Your task to perform on an android device: turn on javascript in the chrome app Image 0: 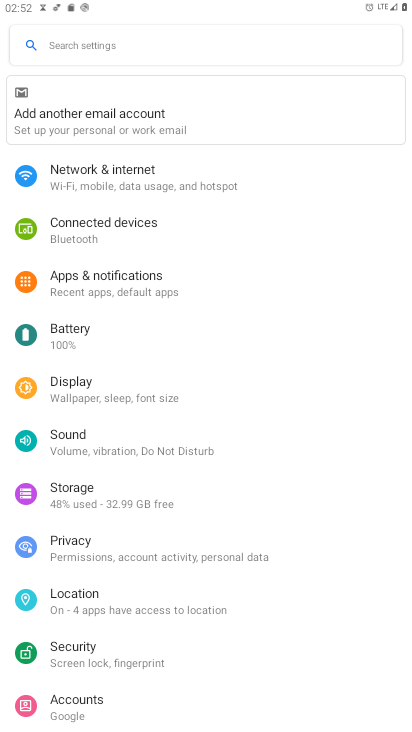
Step 0: press home button
Your task to perform on an android device: turn on javascript in the chrome app Image 1: 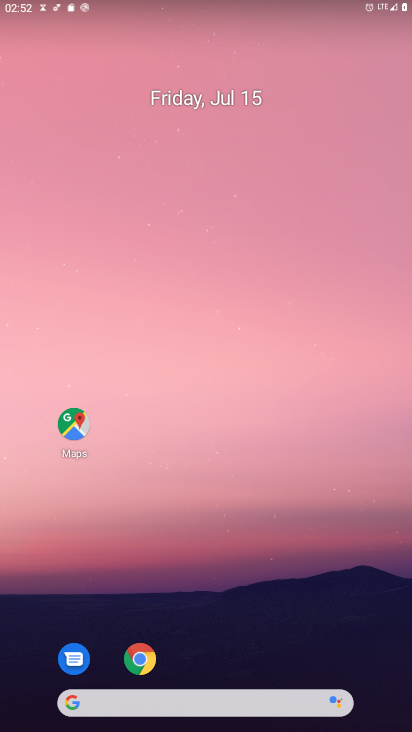
Step 1: click (141, 662)
Your task to perform on an android device: turn on javascript in the chrome app Image 2: 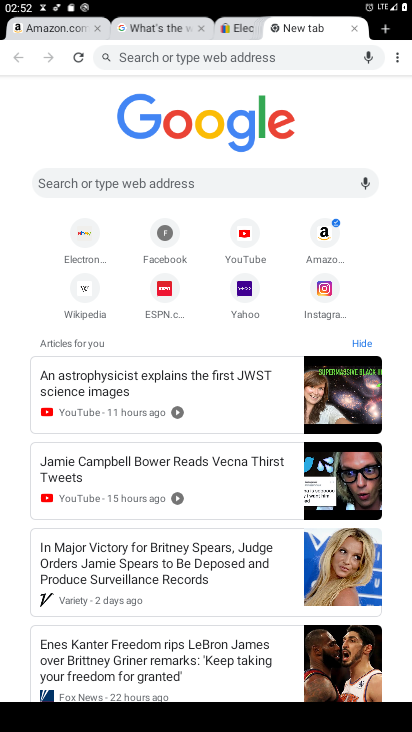
Step 2: click (395, 54)
Your task to perform on an android device: turn on javascript in the chrome app Image 3: 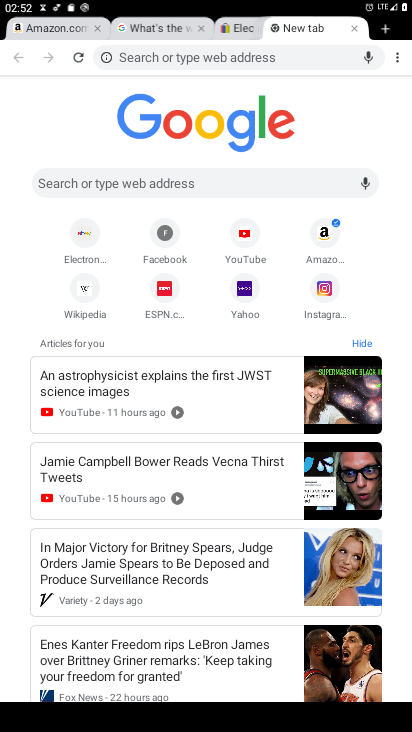
Step 3: click (404, 78)
Your task to perform on an android device: turn on javascript in the chrome app Image 4: 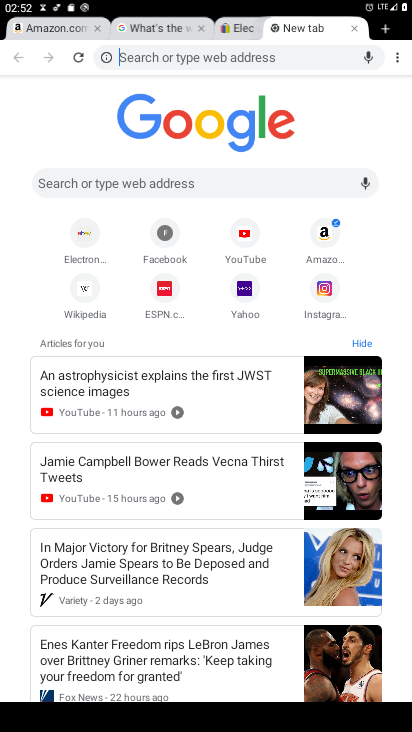
Step 4: click (389, 66)
Your task to perform on an android device: turn on javascript in the chrome app Image 5: 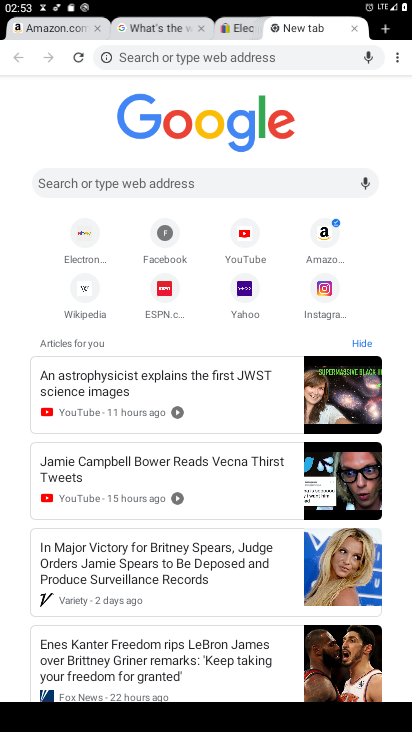
Step 5: click (389, 49)
Your task to perform on an android device: turn on javascript in the chrome app Image 6: 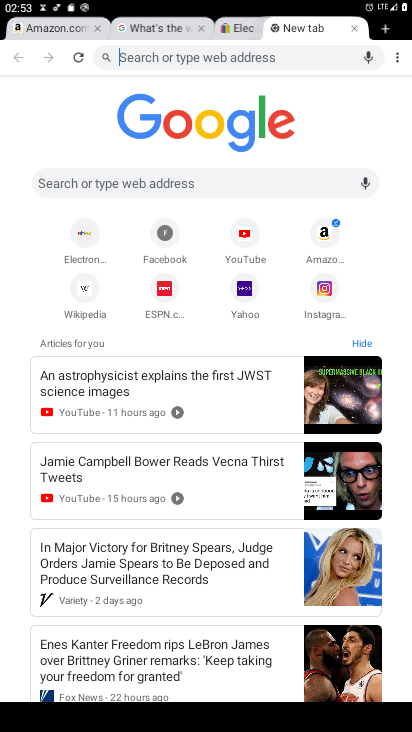
Step 6: click (397, 64)
Your task to perform on an android device: turn on javascript in the chrome app Image 7: 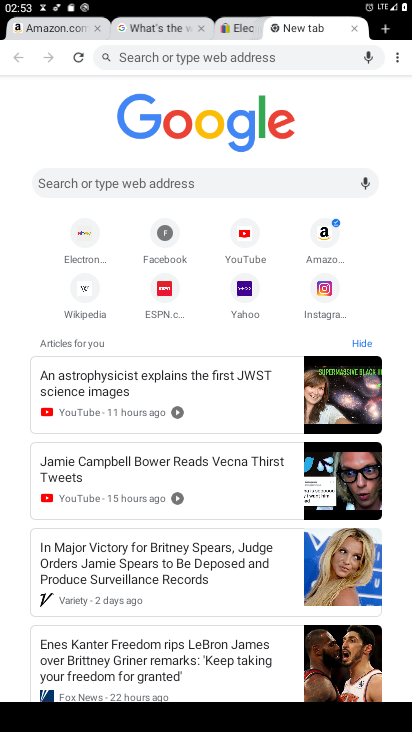
Step 7: click (399, 55)
Your task to perform on an android device: turn on javascript in the chrome app Image 8: 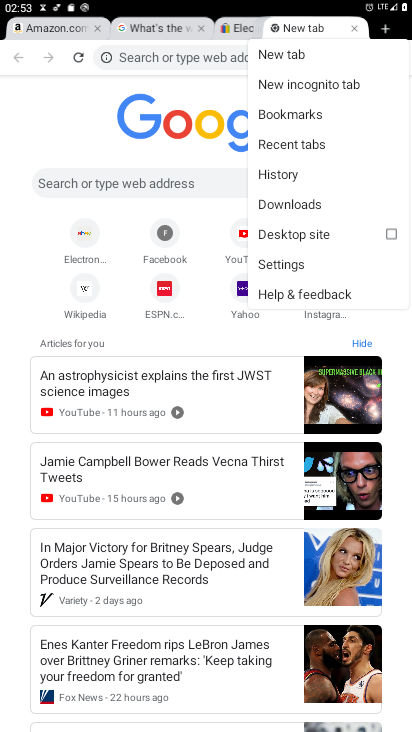
Step 8: click (292, 267)
Your task to perform on an android device: turn on javascript in the chrome app Image 9: 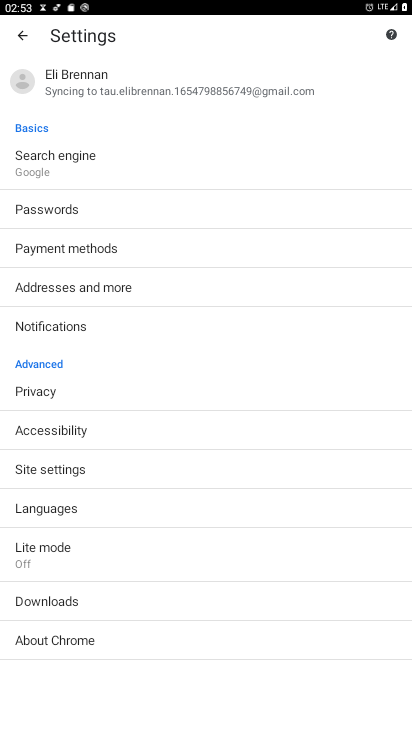
Step 9: click (48, 463)
Your task to perform on an android device: turn on javascript in the chrome app Image 10: 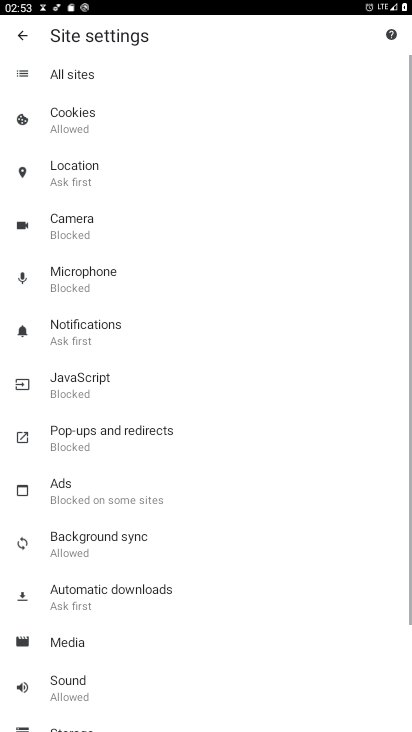
Step 10: click (101, 372)
Your task to perform on an android device: turn on javascript in the chrome app Image 11: 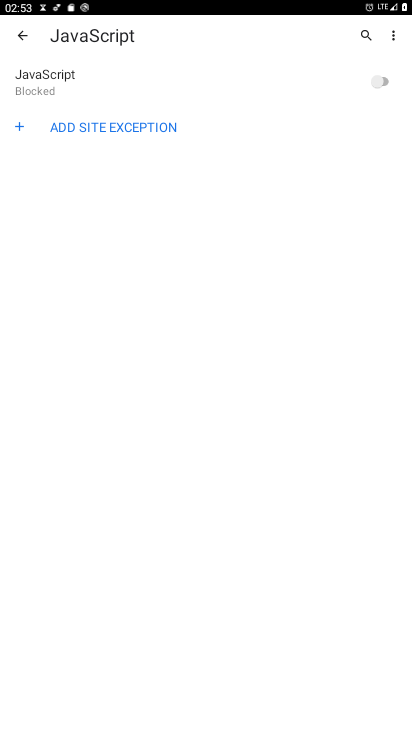
Step 11: click (385, 79)
Your task to perform on an android device: turn on javascript in the chrome app Image 12: 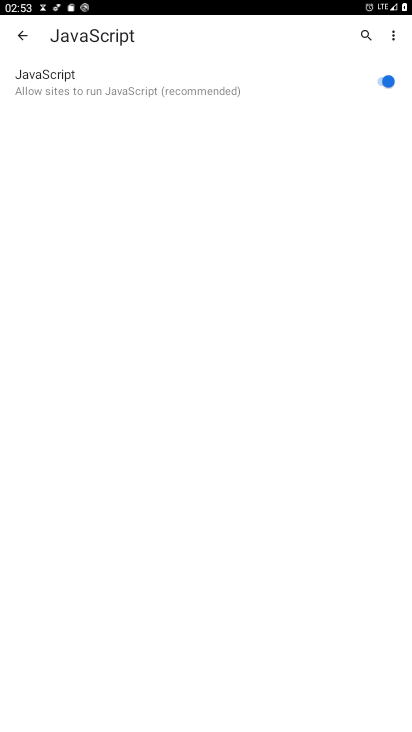
Step 12: task complete